Your task to perform on an android device: Open privacy settings Image 0: 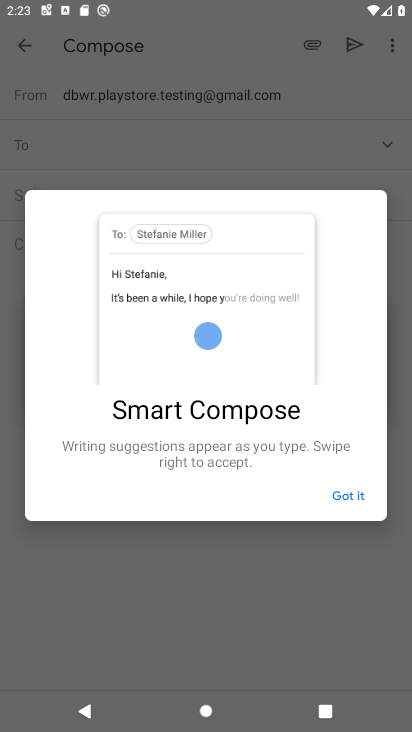
Step 0: press home button
Your task to perform on an android device: Open privacy settings Image 1: 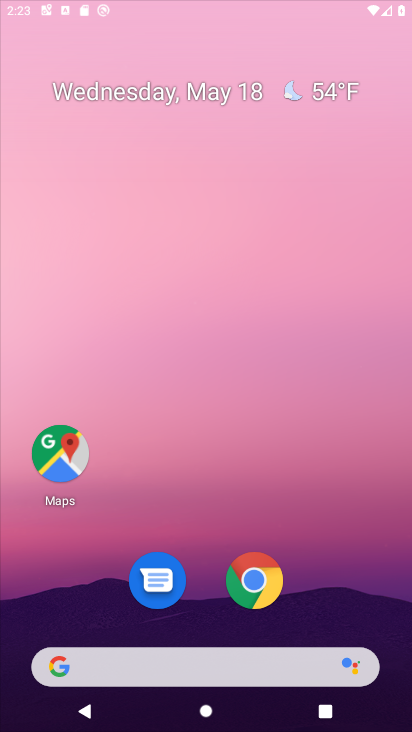
Step 1: drag from (203, 631) to (309, 111)
Your task to perform on an android device: Open privacy settings Image 2: 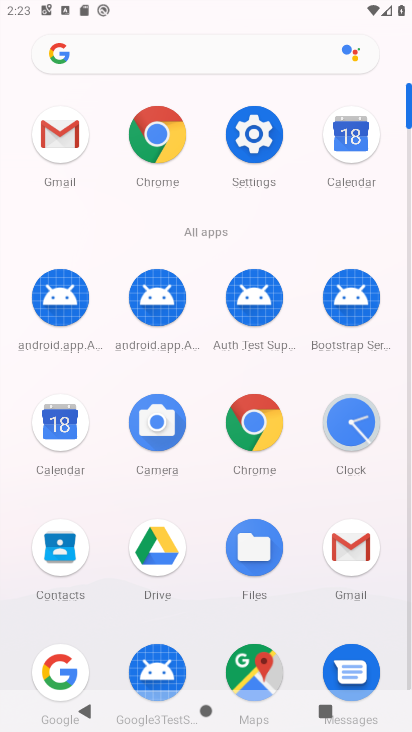
Step 2: click (265, 111)
Your task to perform on an android device: Open privacy settings Image 3: 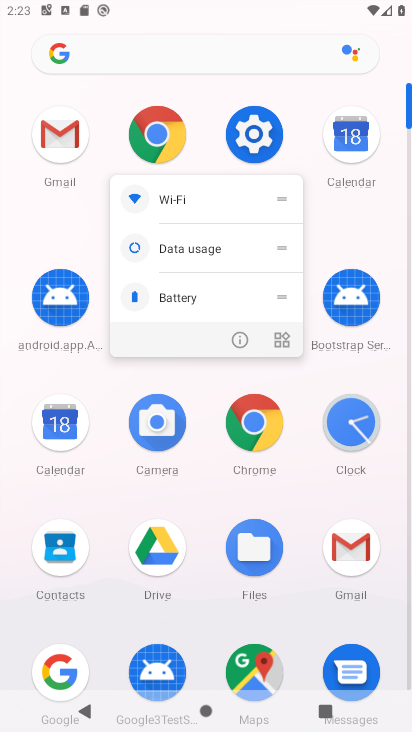
Step 3: click (240, 328)
Your task to perform on an android device: Open privacy settings Image 4: 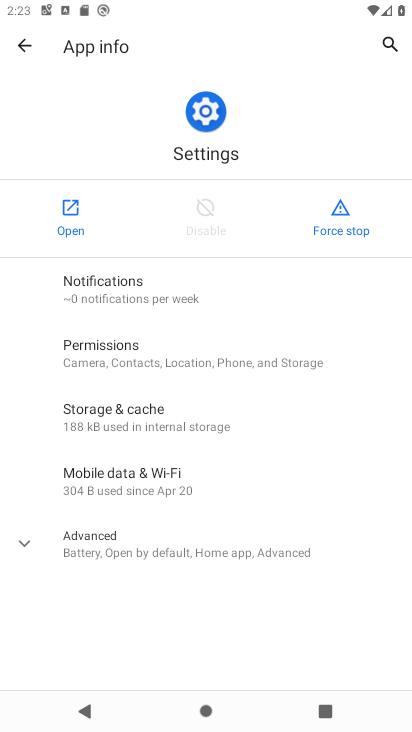
Step 4: click (65, 229)
Your task to perform on an android device: Open privacy settings Image 5: 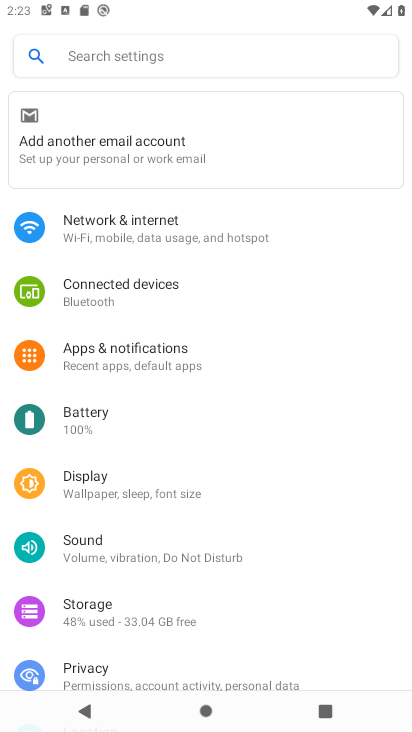
Step 5: click (111, 673)
Your task to perform on an android device: Open privacy settings Image 6: 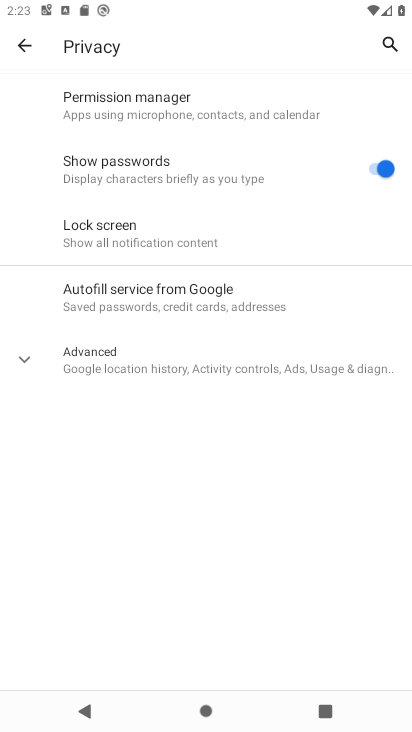
Step 6: drag from (276, 503) to (306, 249)
Your task to perform on an android device: Open privacy settings Image 7: 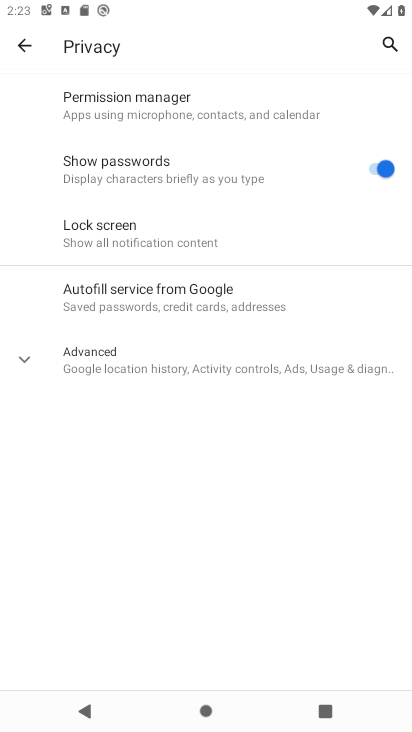
Step 7: click (191, 42)
Your task to perform on an android device: Open privacy settings Image 8: 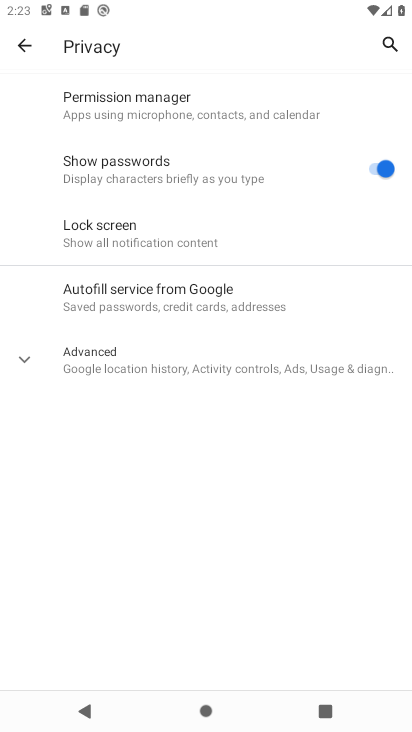
Step 8: task complete